Your task to perform on an android device: check battery use Image 0: 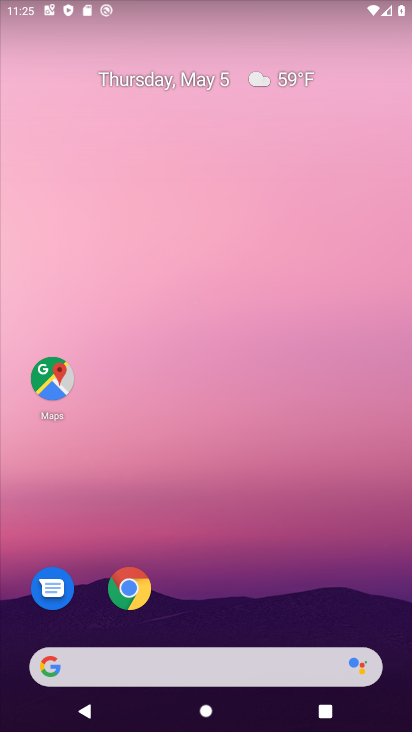
Step 0: drag from (214, 498) to (228, 65)
Your task to perform on an android device: check battery use Image 1: 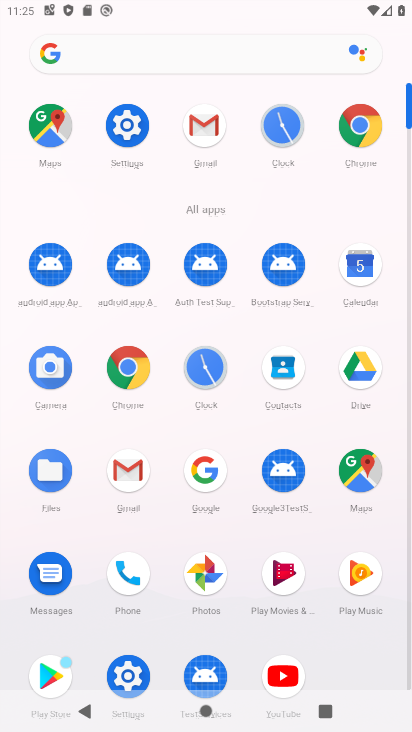
Step 1: click (131, 136)
Your task to perform on an android device: check battery use Image 2: 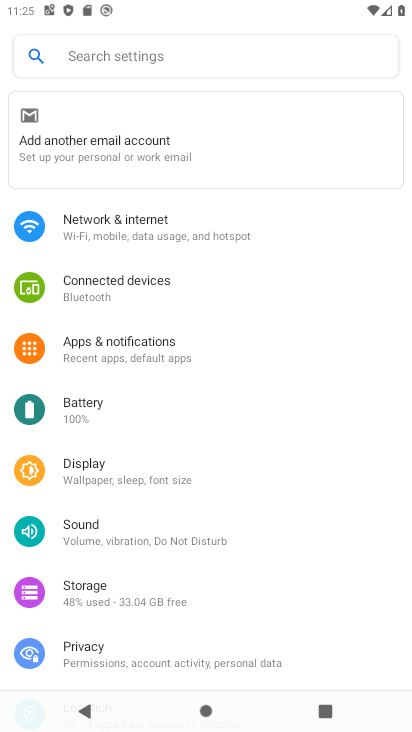
Step 2: click (124, 399)
Your task to perform on an android device: check battery use Image 3: 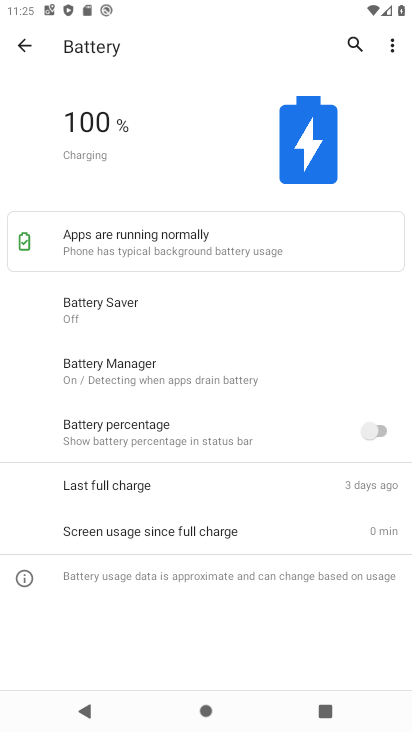
Step 3: click (393, 42)
Your task to perform on an android device: check battery use Image 4: 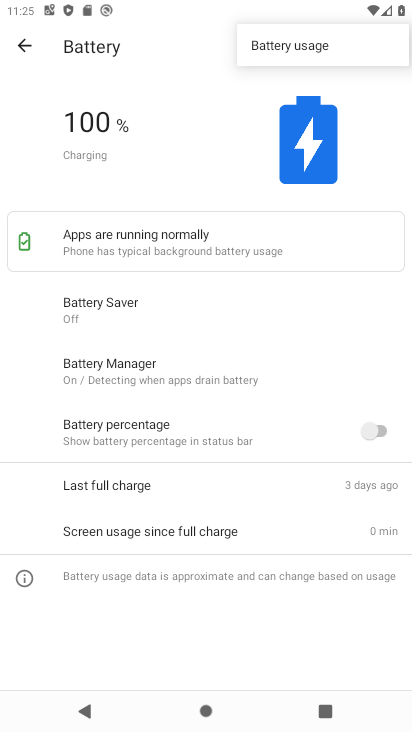
Step 4: click (339, 43)
Your task to perform on an android device: check battery use Image 5: 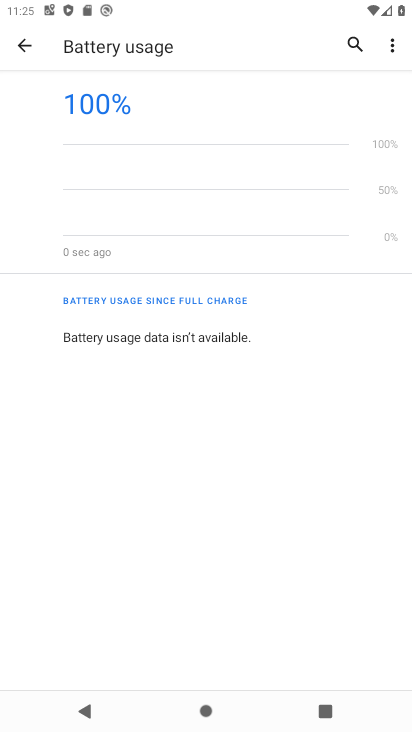
Step 5: task complete